Your task to perform on an android device: Check the news Image 0: 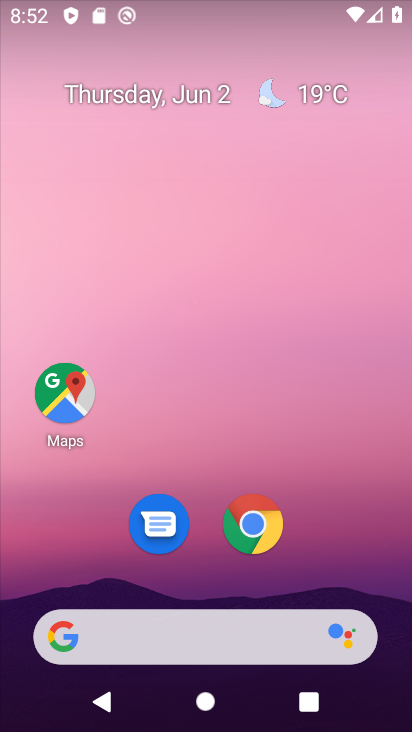
Step 0: click (248, 635)
Your task to perform on an android device: Check the news Image 1: 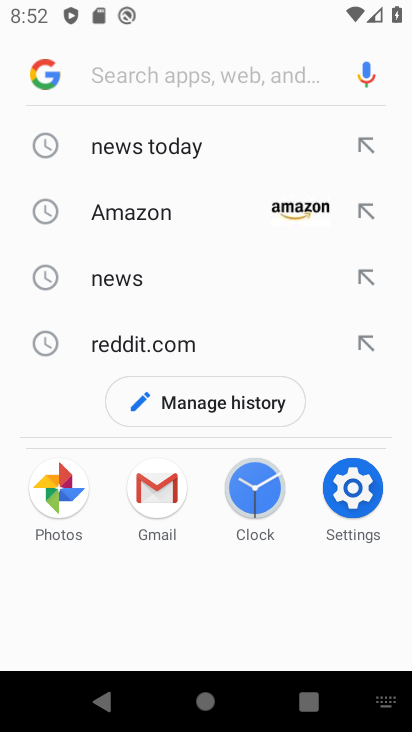
Step 1: click (120, 279)
Your task to perform on an android device: Check the news Image 2: 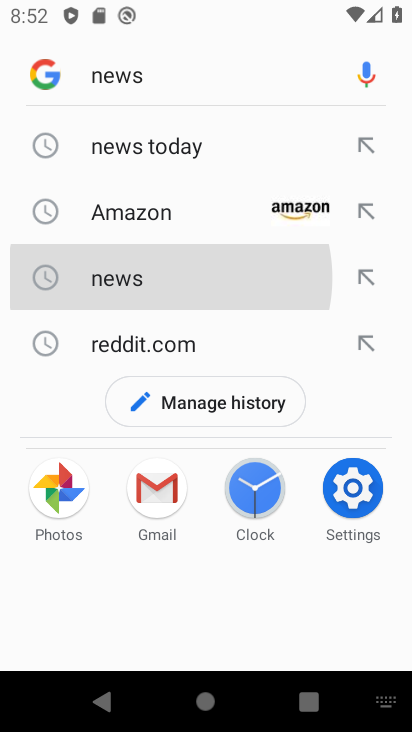
Step 2: click (107, 266)
Your task to perform on an android device: Check the news Image 3: 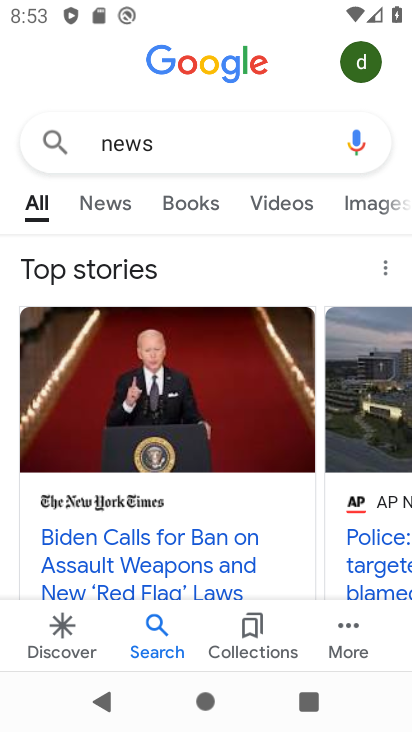
Step 3: click (109, 187)
Your task to perform on an android device: Check the news Image 4: 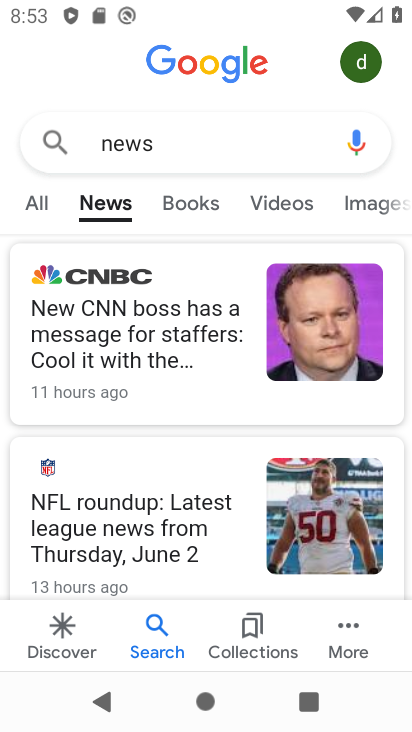
Step 4: task complete